Your task to perform on an android device: turn notification dots on Image 0: 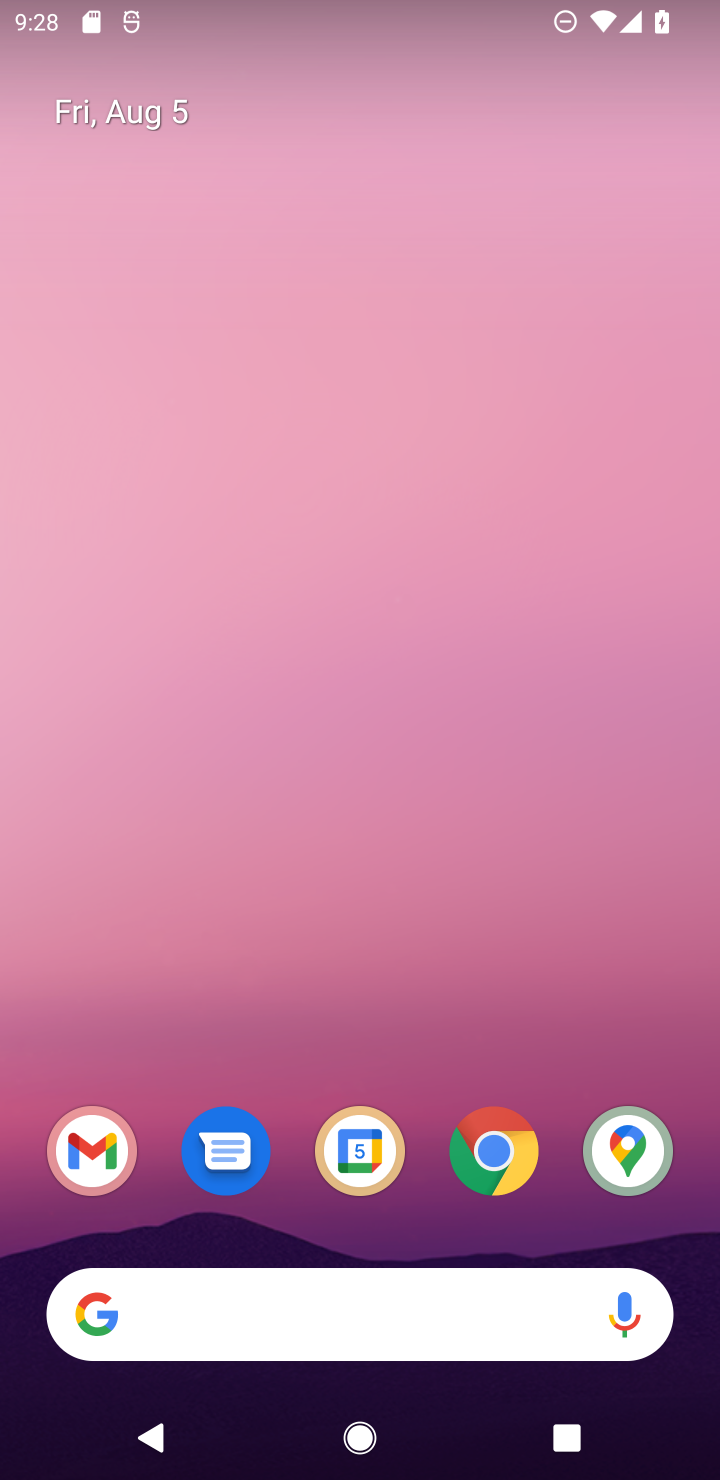
Step 0: drag from (421, 1014) to (496, 404)
Your task to perform on an android device: turn notification dots on Image 1: 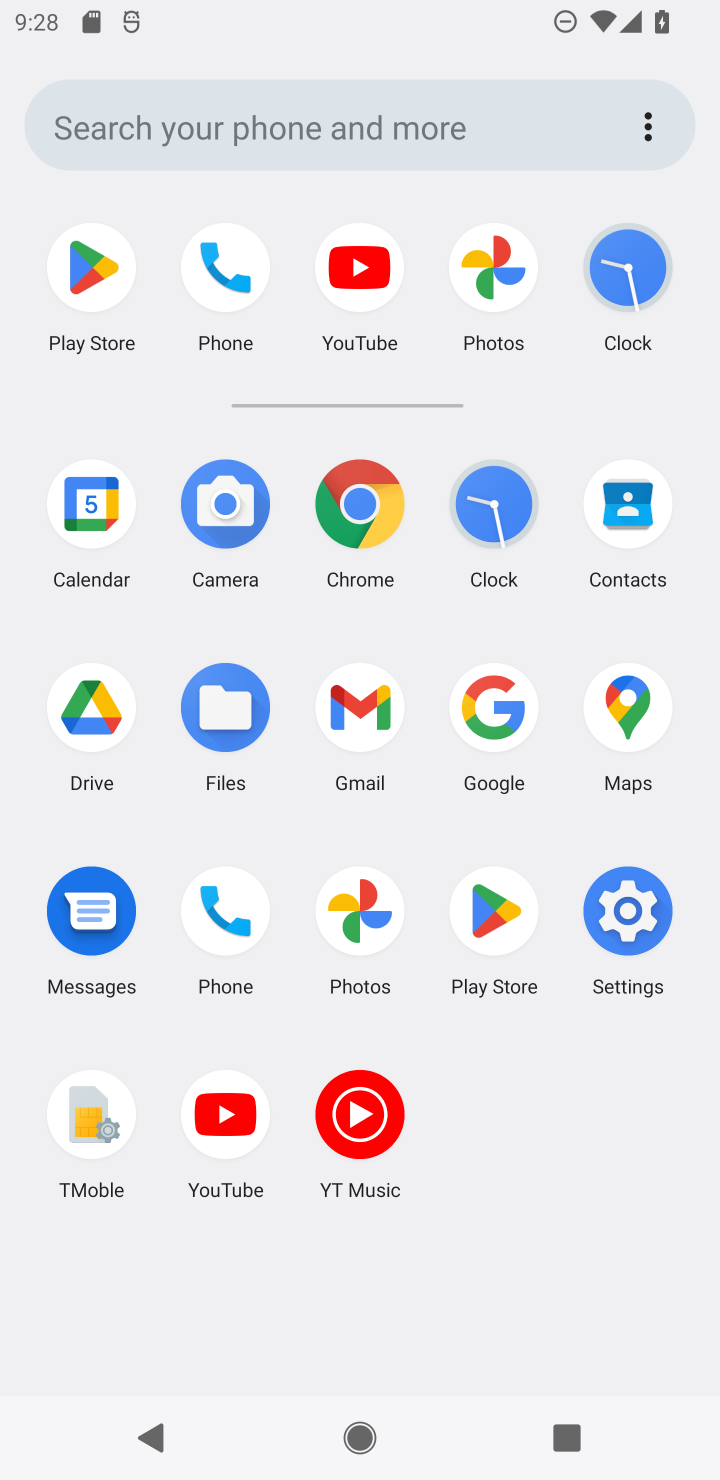
Step 1: click (629, 931)
Your task to perform on an android device: turn notification dots on Image 2: 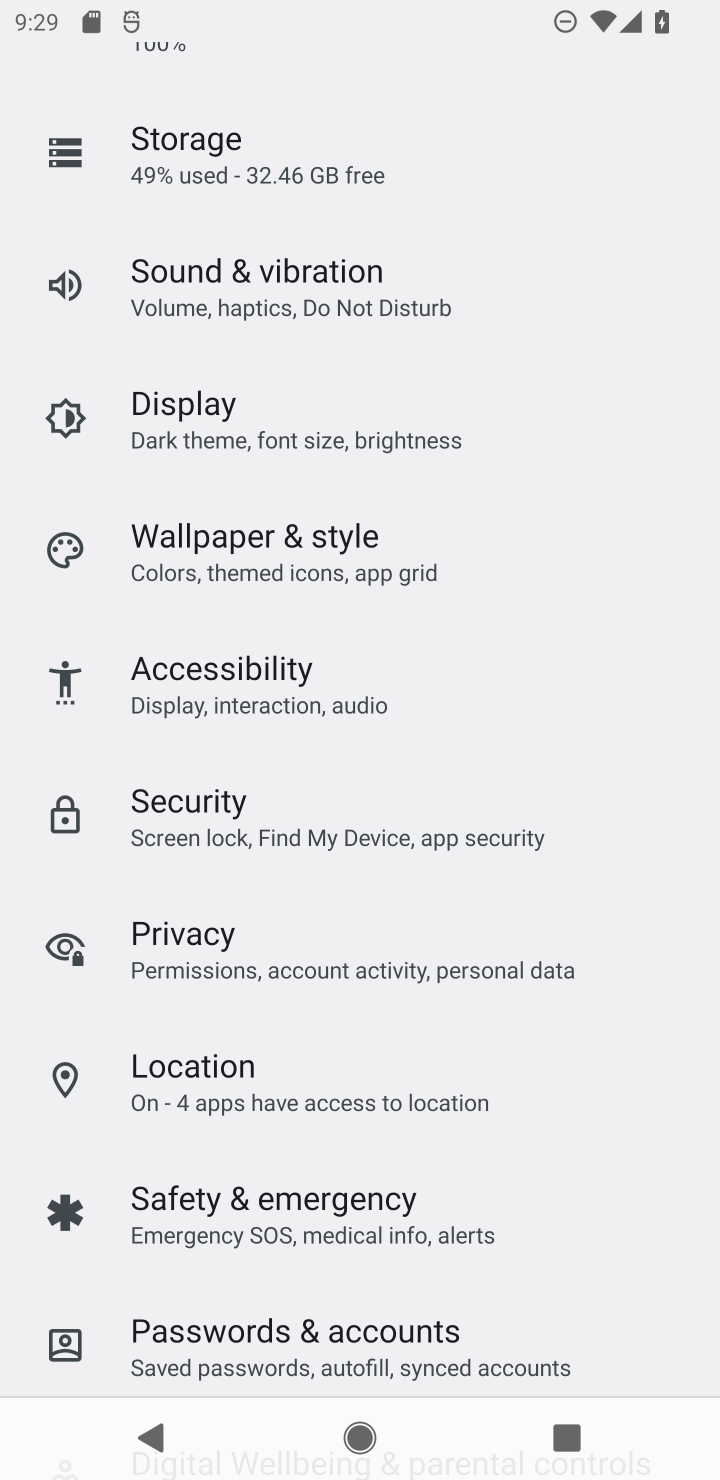
Step 2: drag from (269, 554) to (122, 1256)
Your task to perform on an android device: turn notification dots on Image 3: 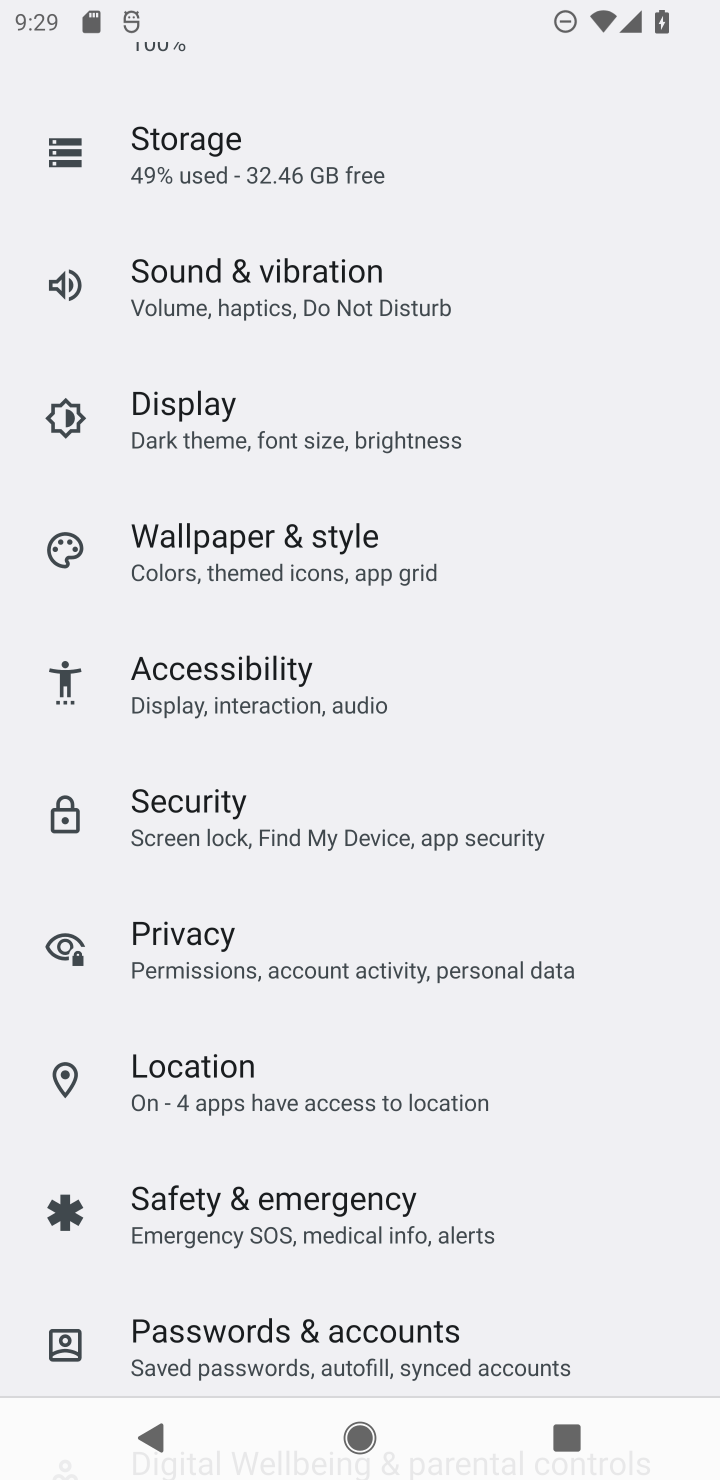
Step 3: drag from (371, 290) to (407, 1018)
Your task to perform on an android device: turn notification dots on Image 4: 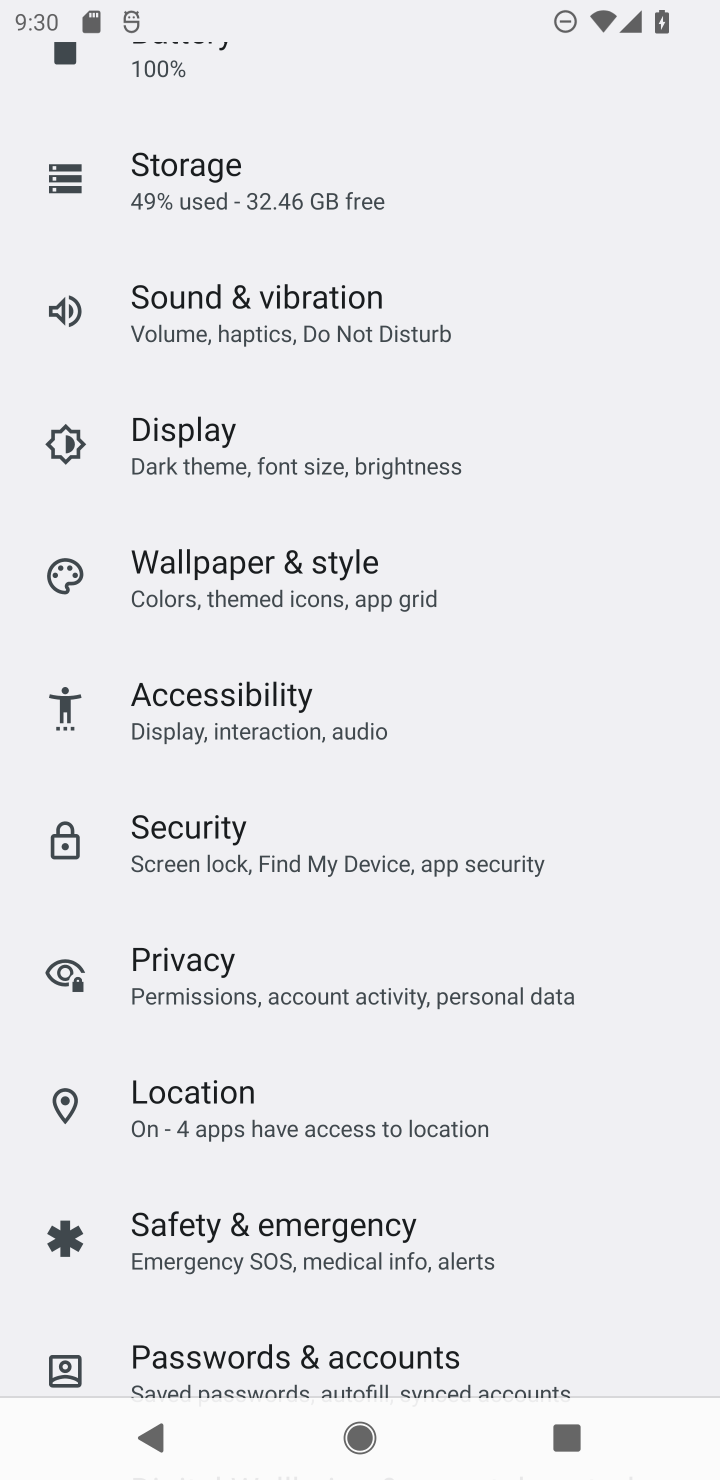
Step 4: drag from (336, 499) to (193, 1399)
Your task to perform on an android device: turn notification dots on Image 5: 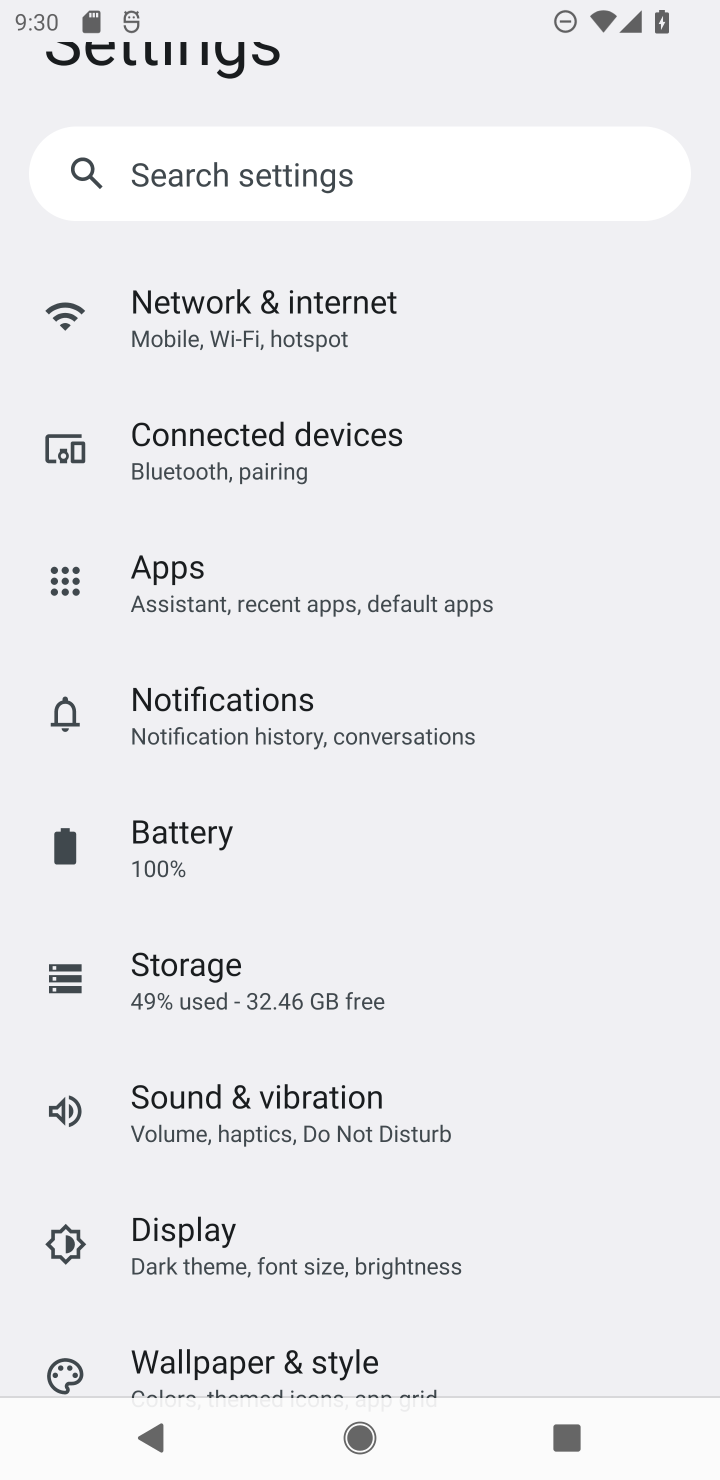
Step 5: click (158, 713)
Your task to perform on an android device: turn notification dots on Image 6: 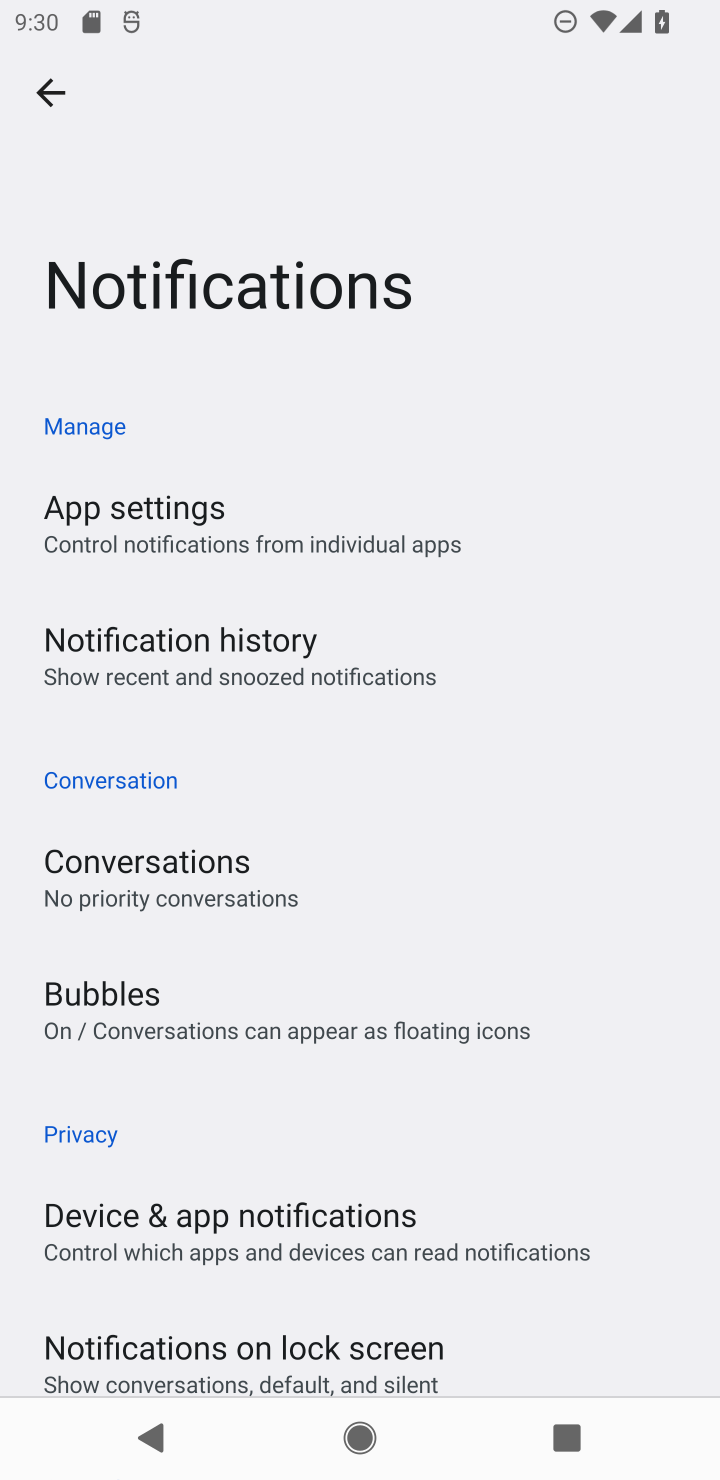
Step 6: drag from (436, 1103) to (453, 412)
Your task to perform on an android device: turn notification dots on Image 7: 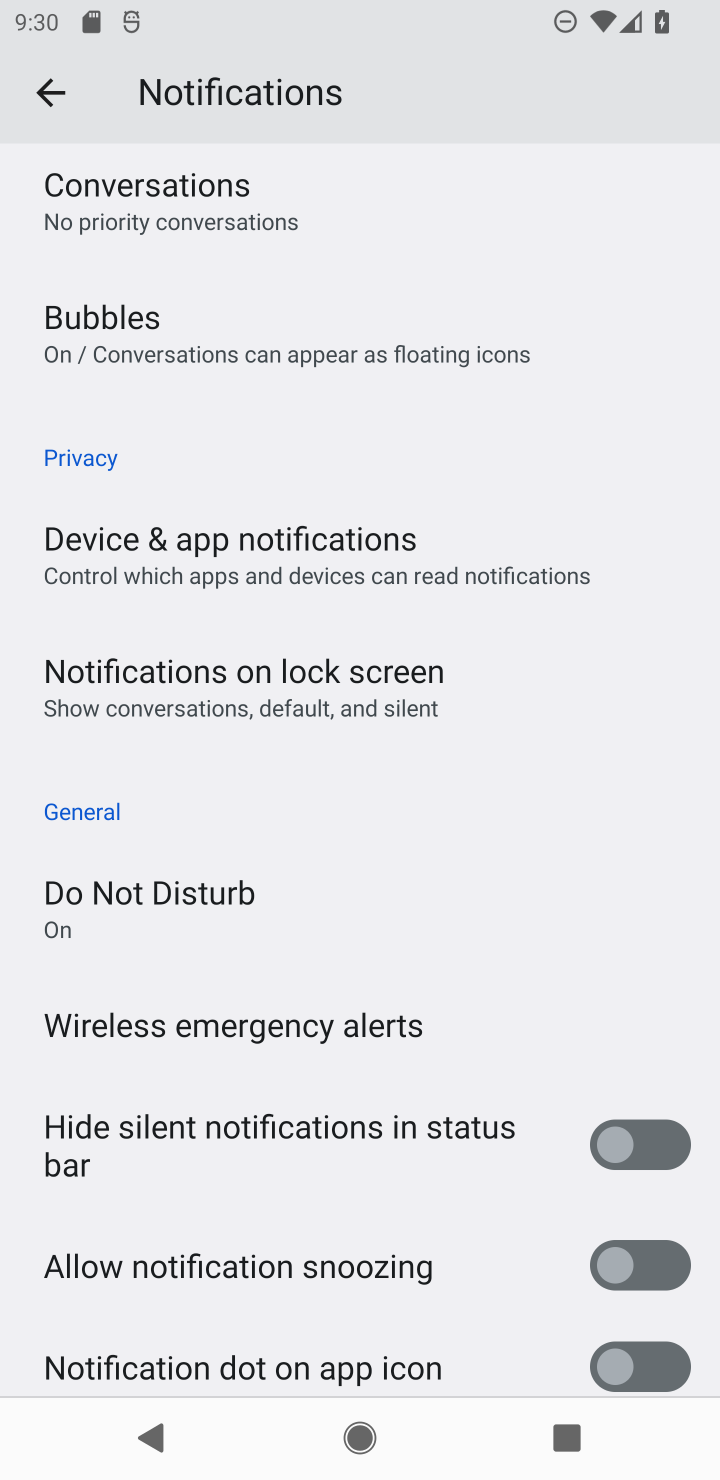
Step 7: drag from (540, 796) to (542, 689)
Your task to perform on an android device: turn notification dots on Image 8: 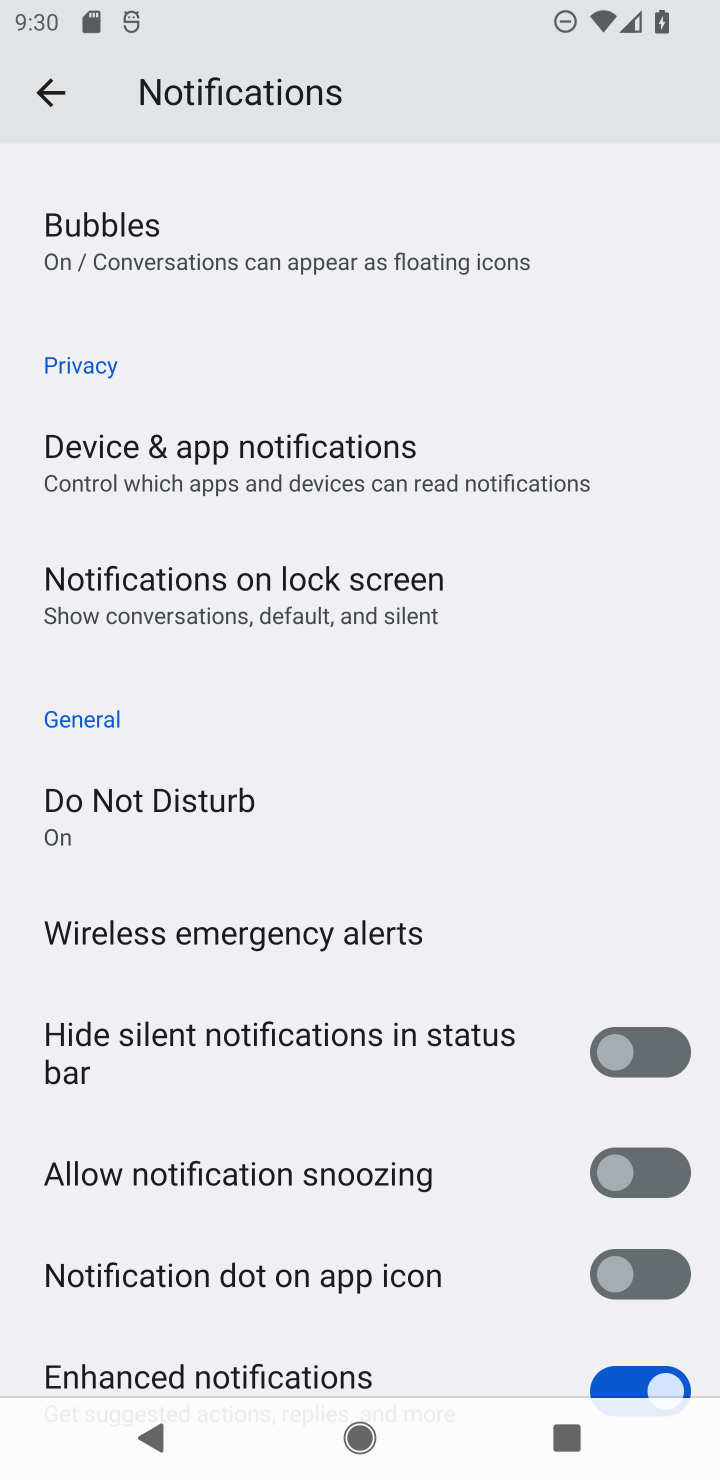
Step 8: drag from (496, 1134) to (539, 787)
Your task to perform on an android device: turn notification dots on Image 9: 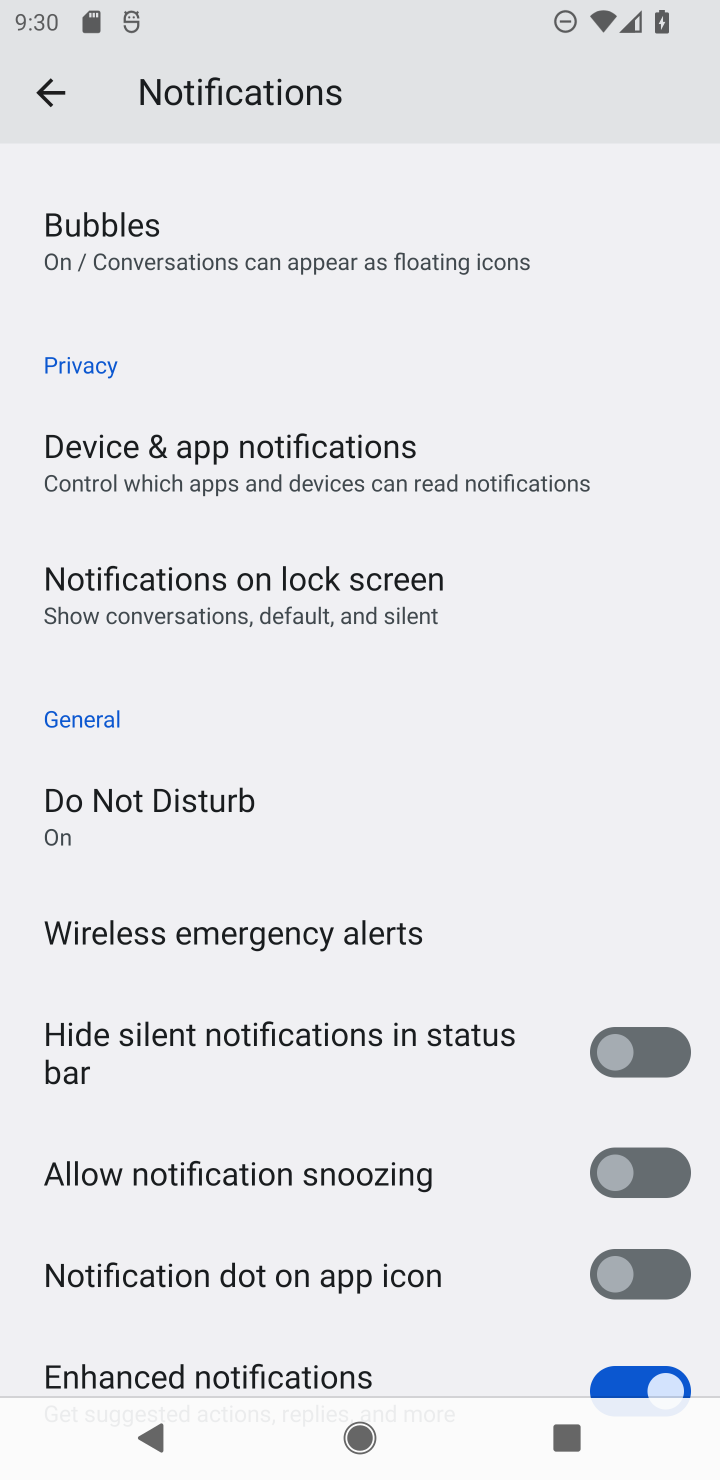
Step 9: drag from (437, 1277) to (443, 938)
Your task to perform on an android device: turn notification dots on Image 10: 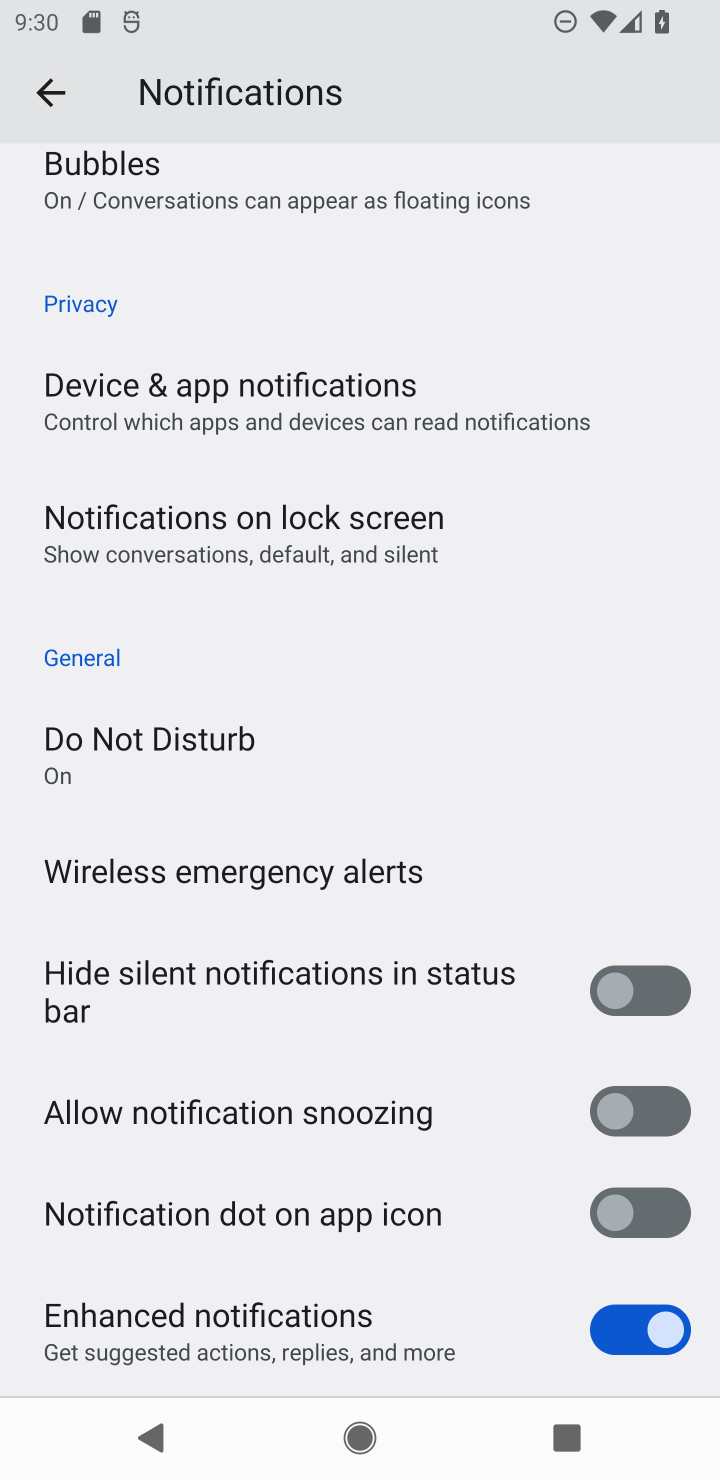
Step 10: drag from (448, 1257) to (455, 924)
Your task to perform on an android device: turn notification dots on Image 11: 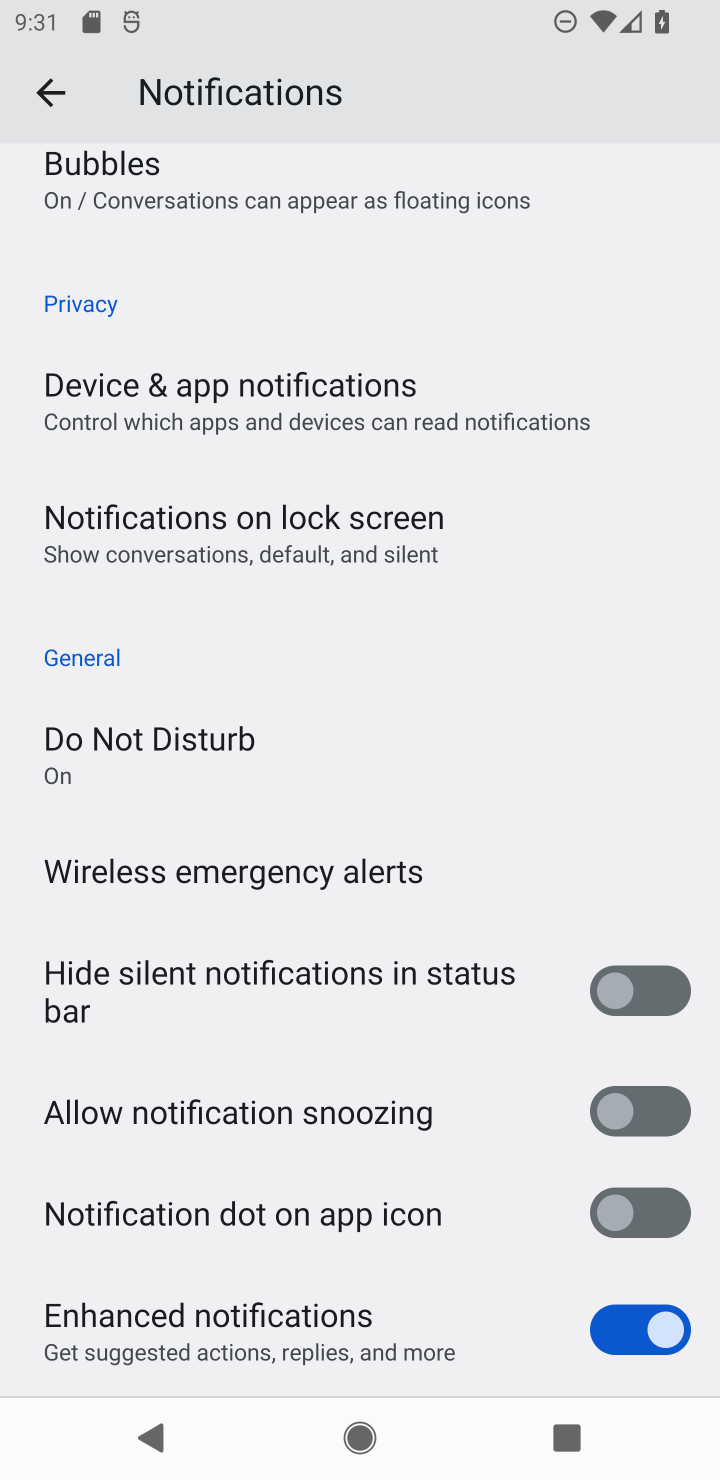
Step 11: click (669, 1224)
Your task to perform on an android device: turn notification dots on Image 12: 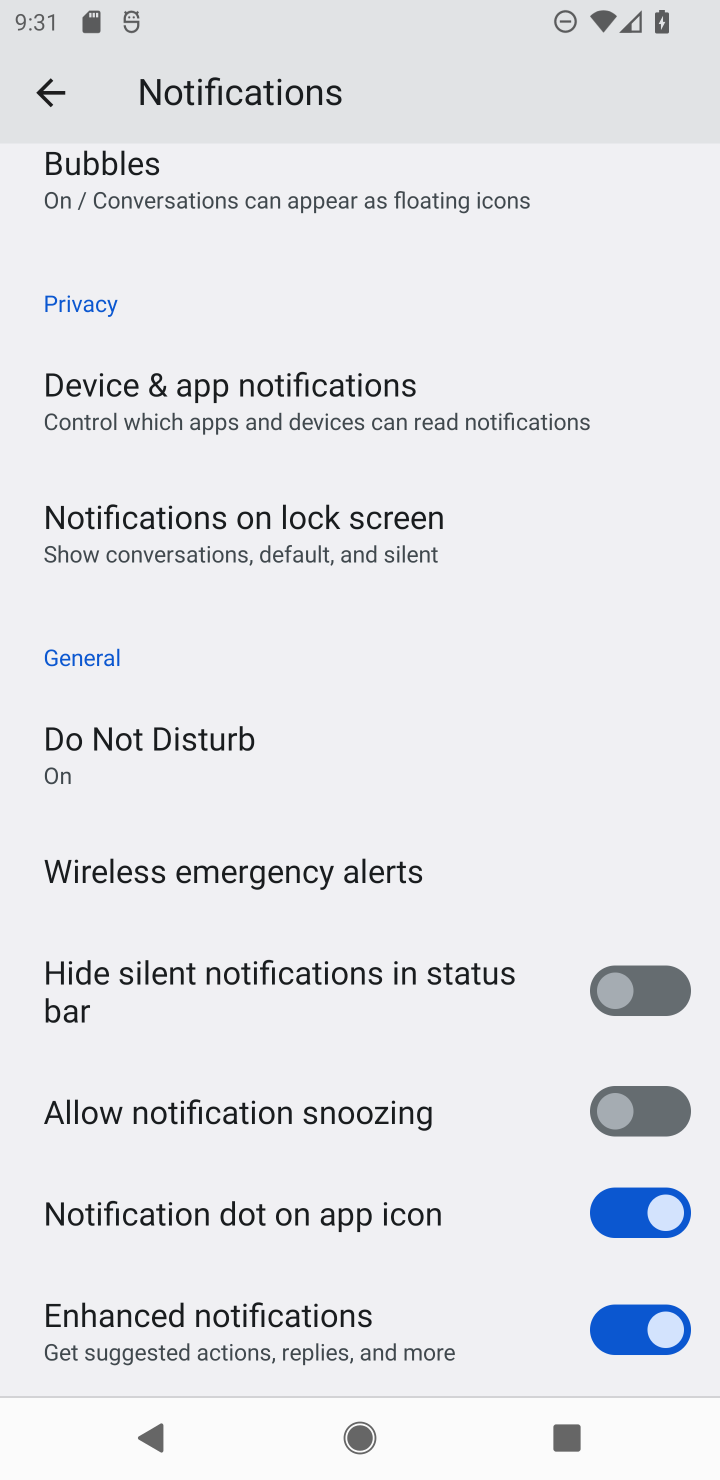
Step 12: task complete